Your task to perform on an android device: Open Google Image 0: 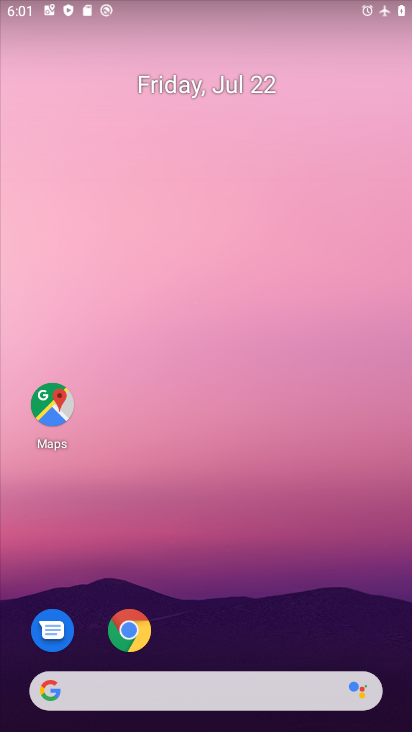
Step 0: drag from (298, 572) to (325, 0)
Your task to perform on an android device: Open Google Image 1: 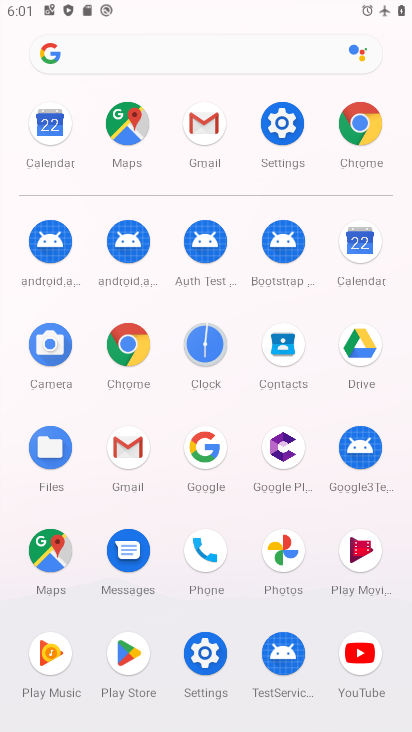
Step 1: click (135, 342)
Your task to perform on an android device: Open Google Image 2: 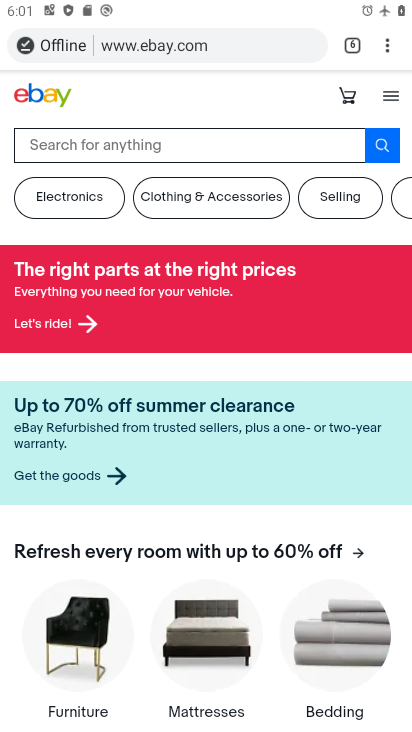
Step 2: press back button
Your task to perform on an android device: Open Google Image 3: 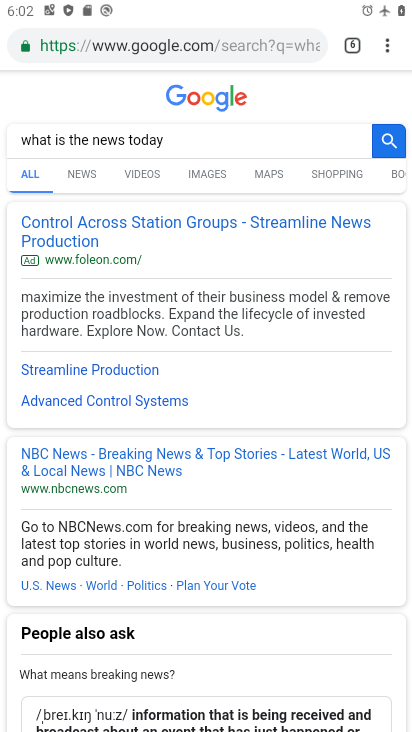
Step 3: press home button
Your task to perform on an android device: Open Google Image 4: 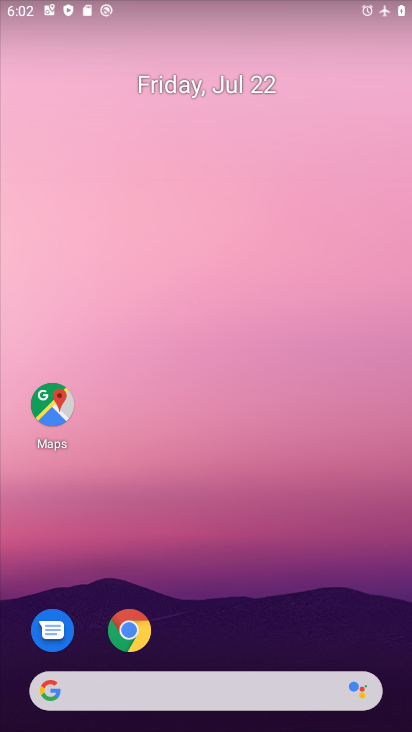
Step 4: drag from (241, 438) to (289, 74)
Your task to perform on an android device: Open Google Image 5: 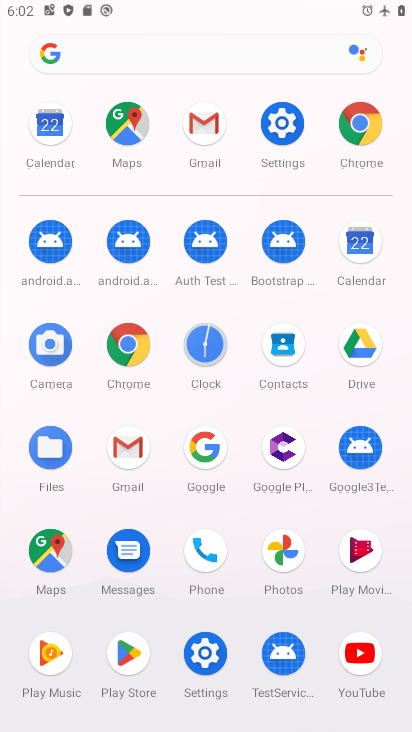
Step 5: click (124, 355)
Your task to perform on an android device: Open Google Image 6: 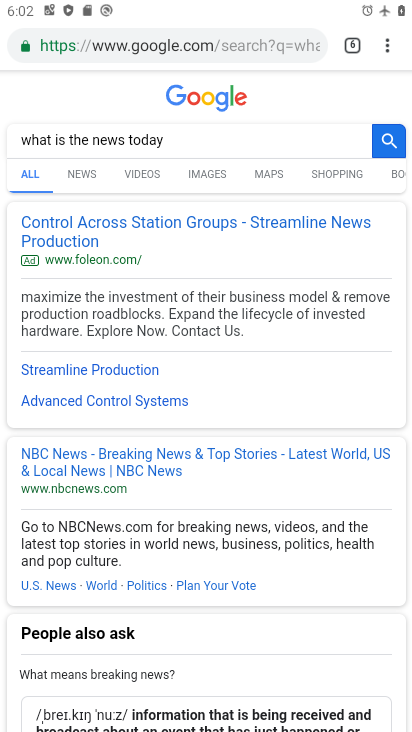
Step 6: task complete